Your task to perform on an android device: Open the map Image 0: 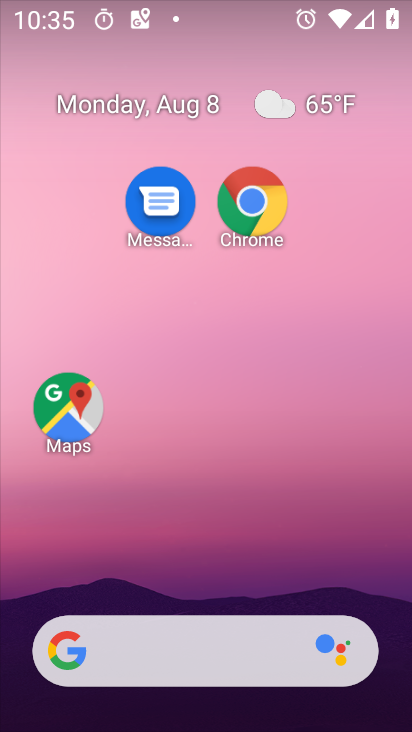
Step 0: drag from (209, 573) to (220, 60)
Your task to perform on an android device: Open the map Image 1: 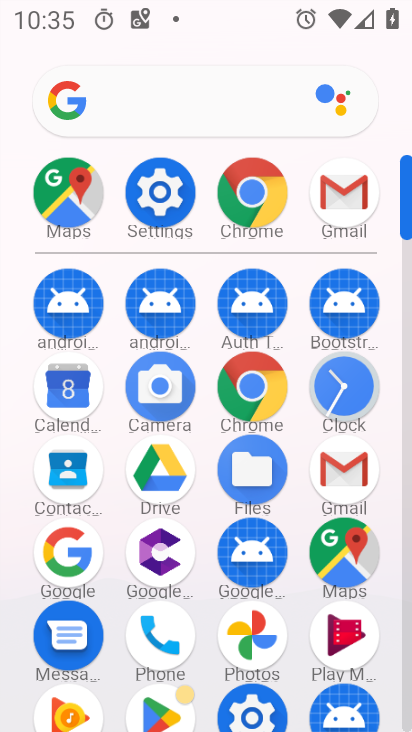
Step 1: click (342, 552)
Your task to perform on an android device: Open the map Image 2: 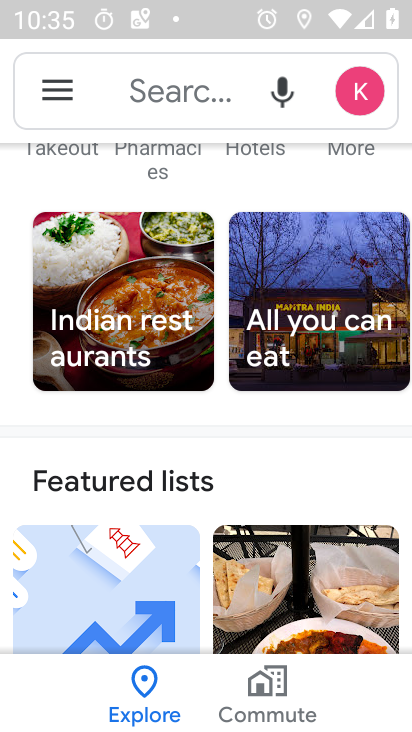
Step 2: task complete